Your task to perform on an android device: Open calendar and show me the third week of next month Image 0: 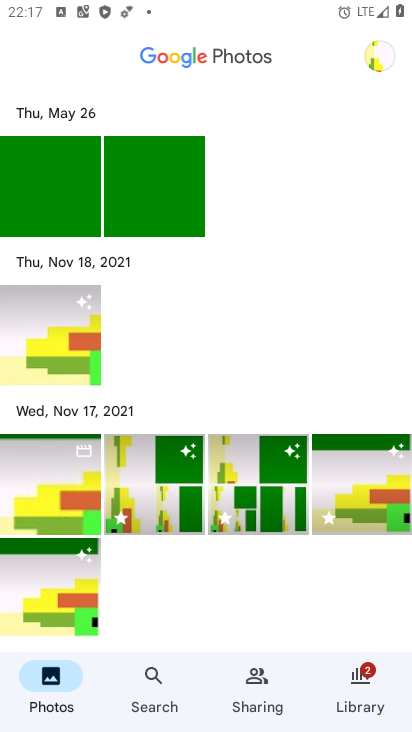
Step 0: press home button
Your task to perform on an android device: Open calendar and show me the third week of next month Image 1: 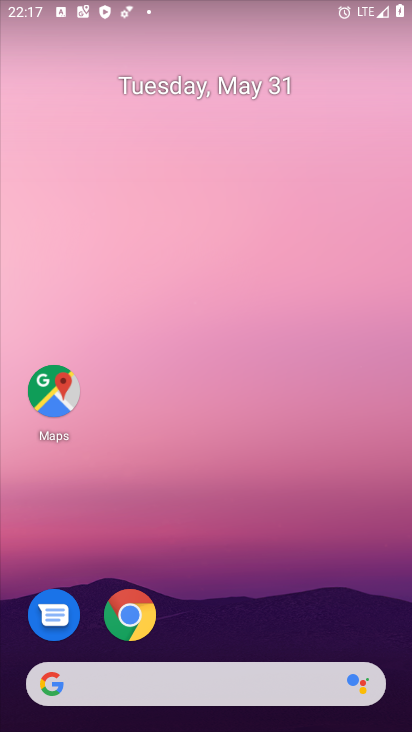
Step 1: drag from (380, 558) to (334, 35)
Your task to perform on an android device: Open calendar and show me the third week of next month Image 2: 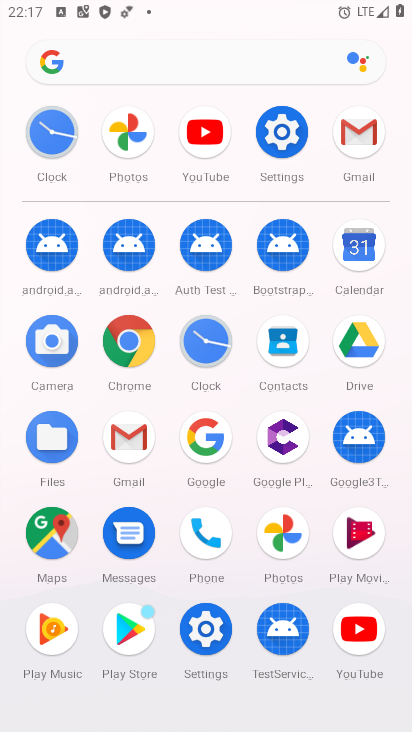
Step 2: click (357, 250)
Your task to perform on an android device: Open calendar and show me the third week of next month Image 3: 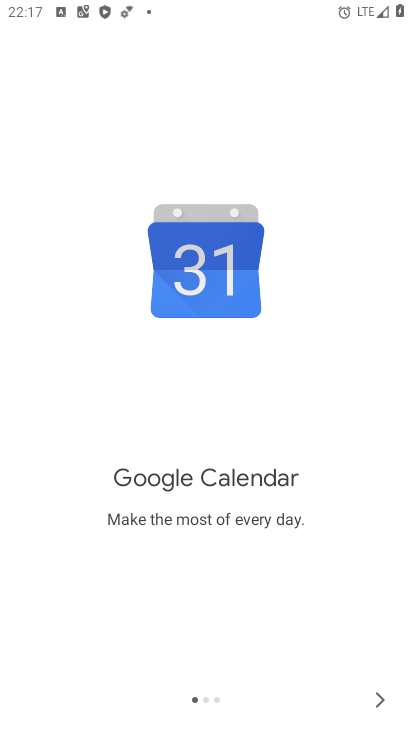
Step 3: click (381, 693)
Your task to perform on an android device: Open calendar and show me the third week of next month Image 4: 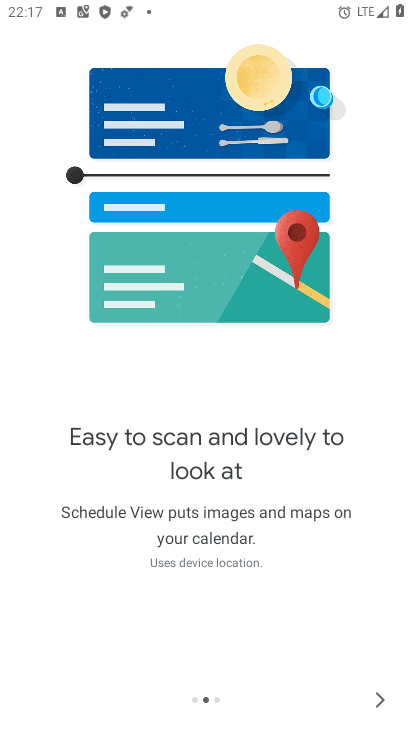
Step 4: click (381, 693)
Your task to perform on an android device: Open calendar and show me the third week of next month Image 5: 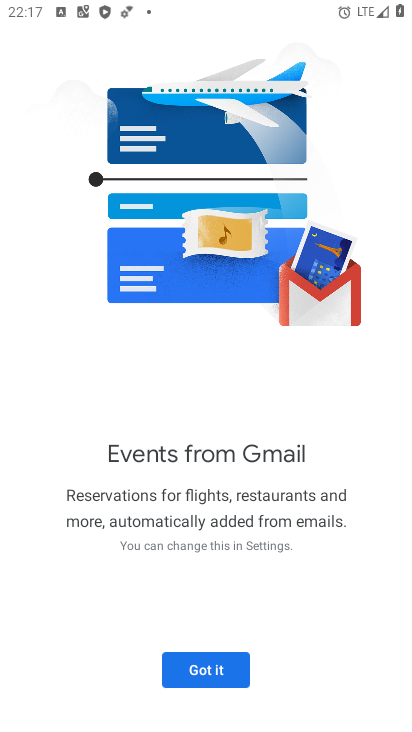
Step 5: click (212, 670)
Your task to perform on an android device: Open calendar and show me the third week of next month Image 6: 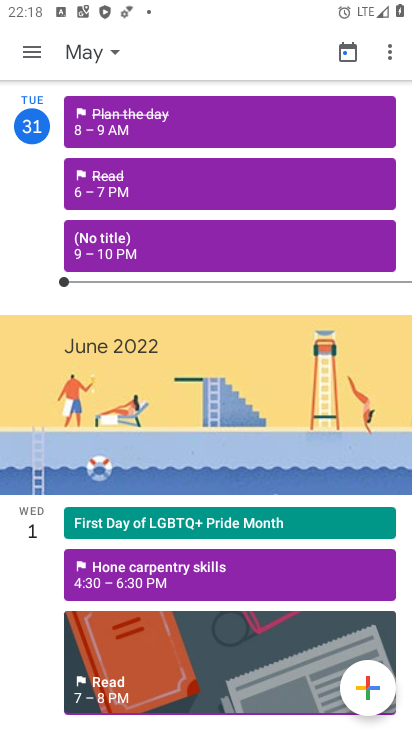
Step 6: click (26, 51)
Your task to perform on an android device: Open calendar and show me the third week of next month Image 7: 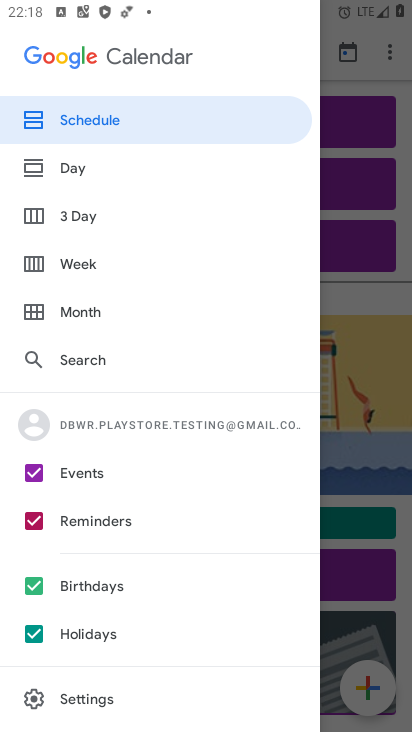
Step 7: click (90, 260)
Your task to perform on an android device: Open calendar and show me the third week of next month Image 8: 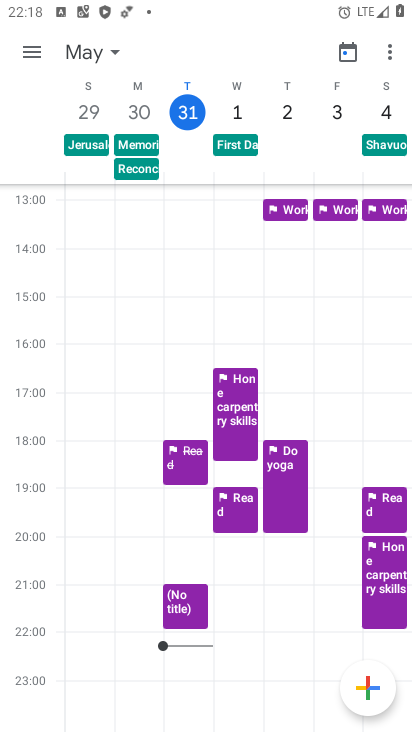
Step 8: click (116, 49)
Your task to perform on an android device: Open calendar and show me the third week of next month Image 9: 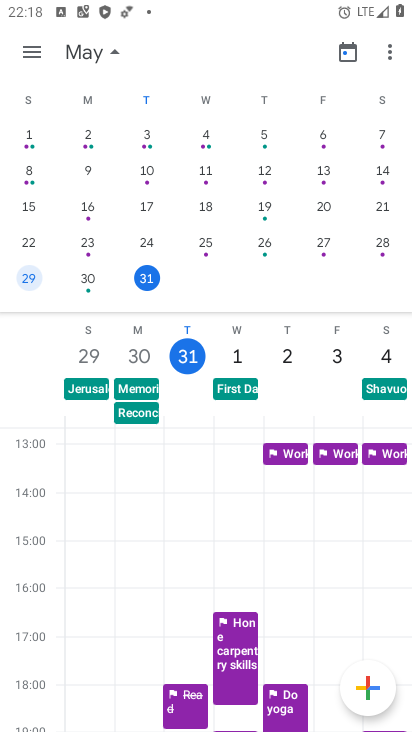
Step 9: drag from (391, 242) to (58, 211)
Your task to perform on an android device: Open calendar and show me the third week of next month Image 10: 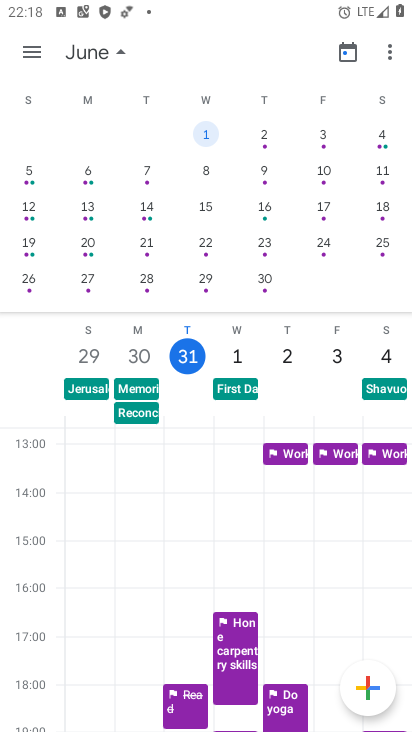
Step 10: click (26, 242)
Your task to perform on an android device: Open calendar and show me the third week of next month Image 11: 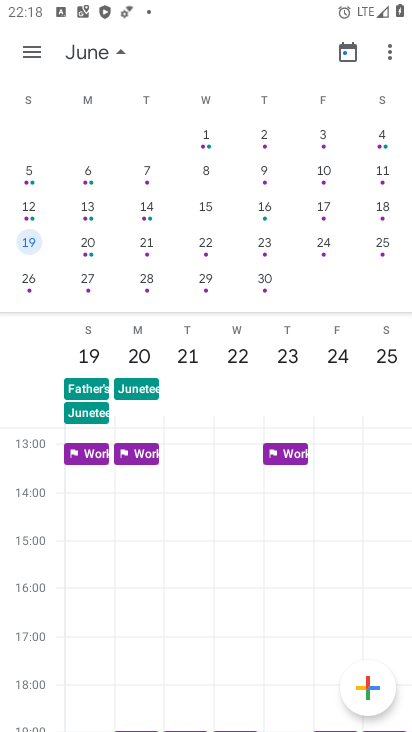
Step 11: task complete